Your task to perform on an android device: turn on the 24-hour format for clock Image 0: 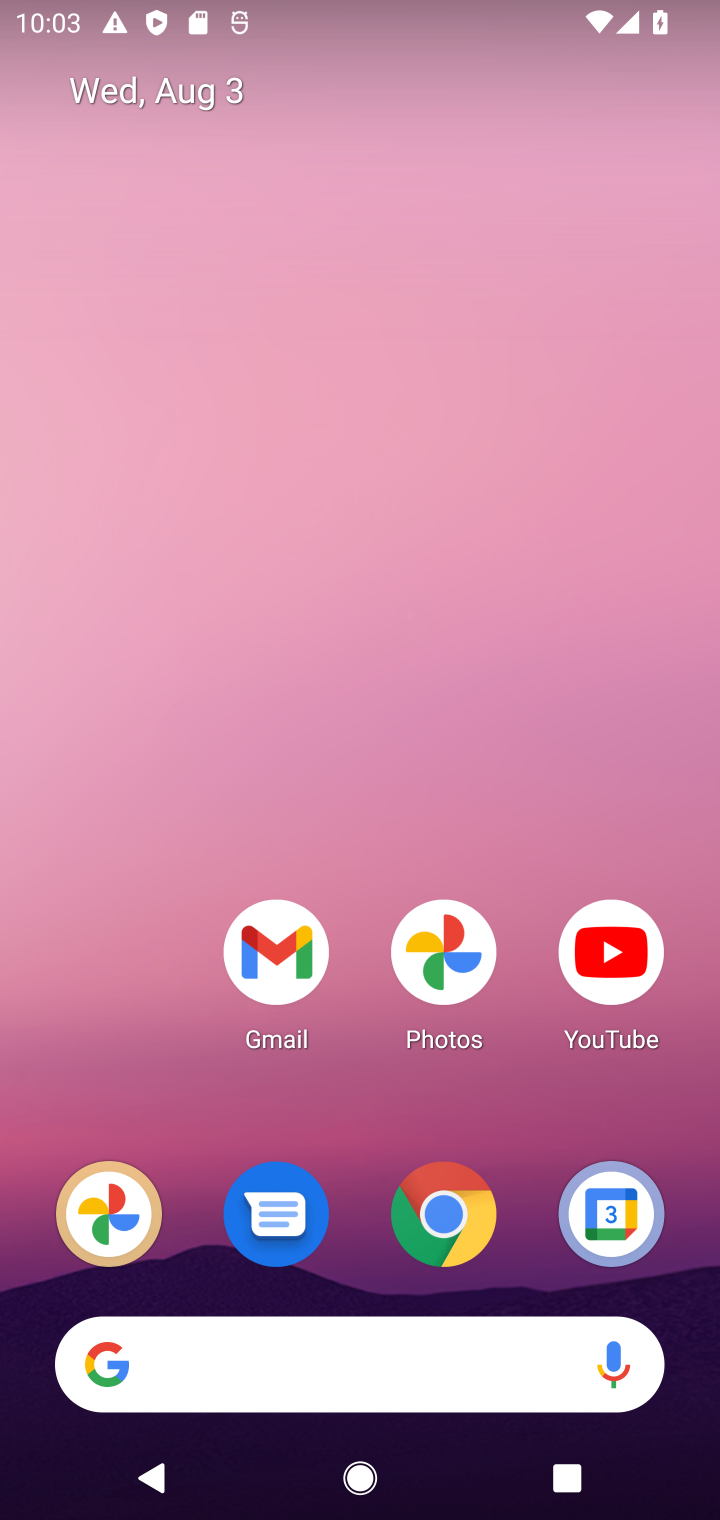
Step 0: press home button
Your task to perform on an android device: turn on the 24-hour format for clock Image 1: 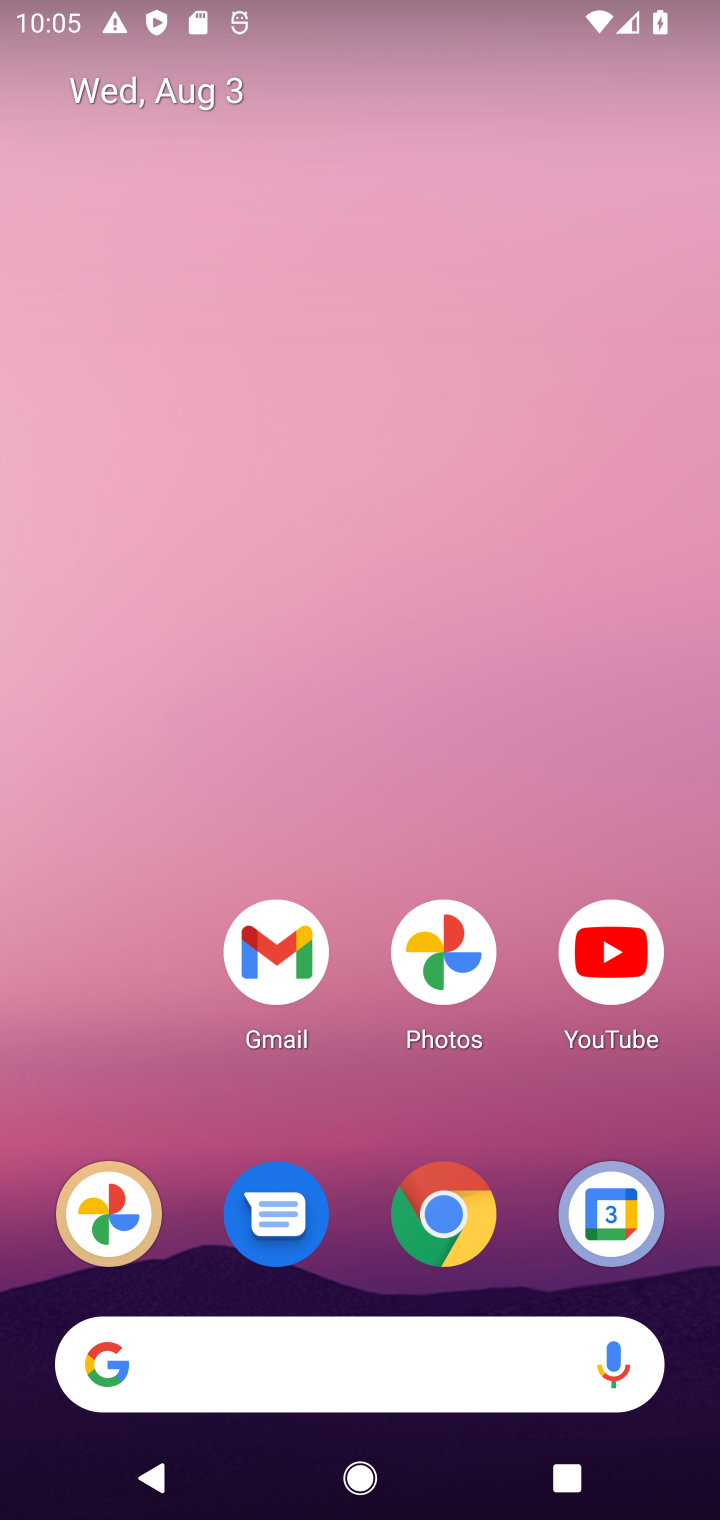
Step 1: drag from (372, 1199) to (399, 421)
Your task to perform on an android device: turn on the 24-hour format for clock Image 2: 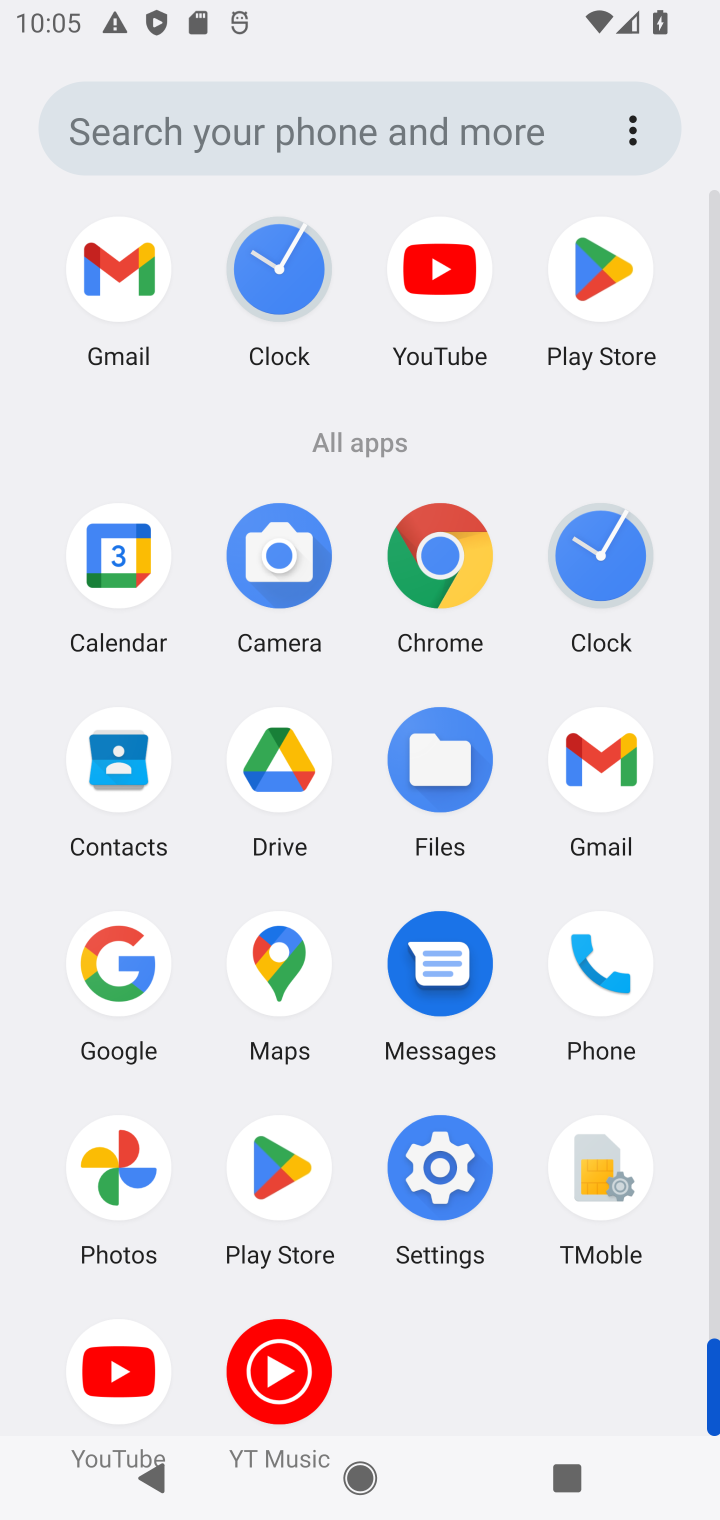
Step 2: click (571, 613)
Your task to perform on an android device: turn on the 24-hour format for clock Image 3: 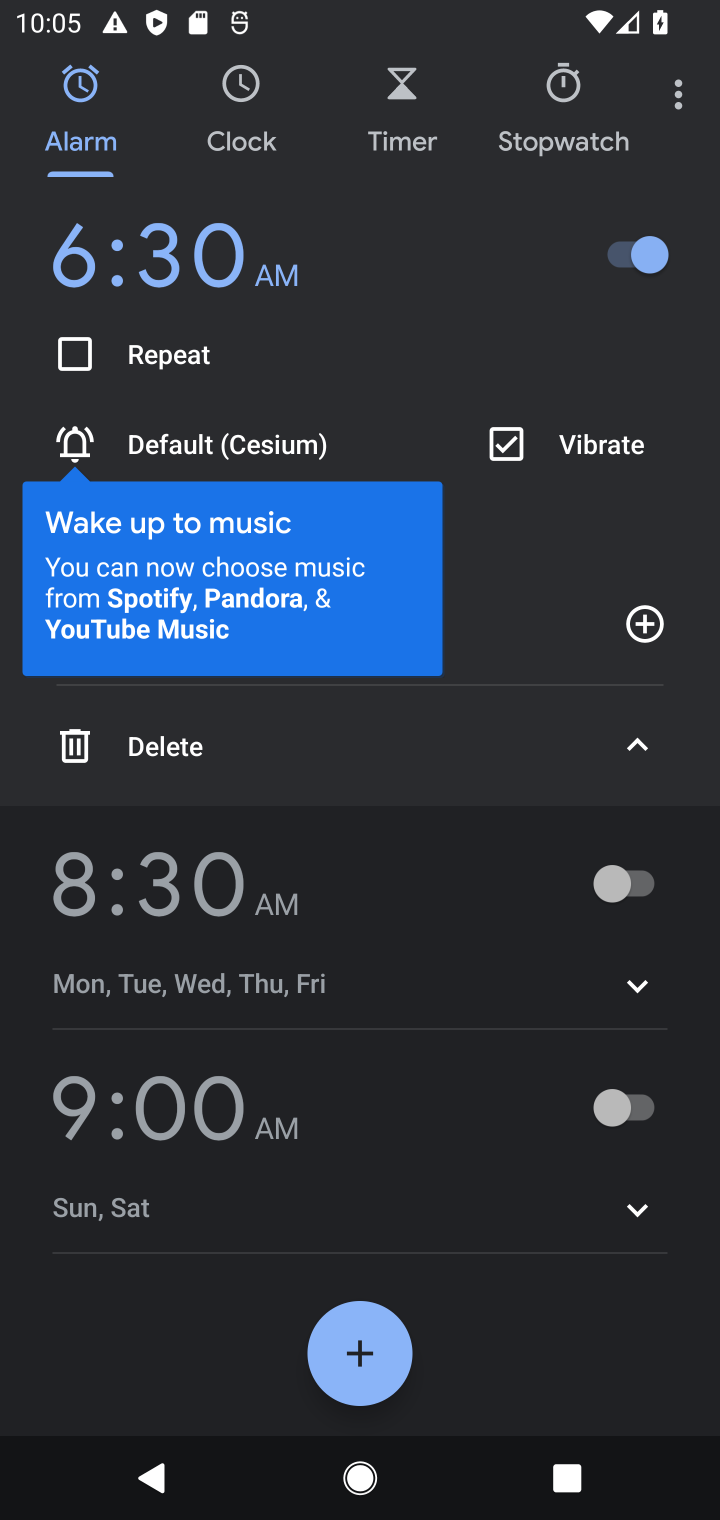
Step 3: click (678, 105)
Your task to perform on an android device: turn on the 24-hour format for clock Image 4: 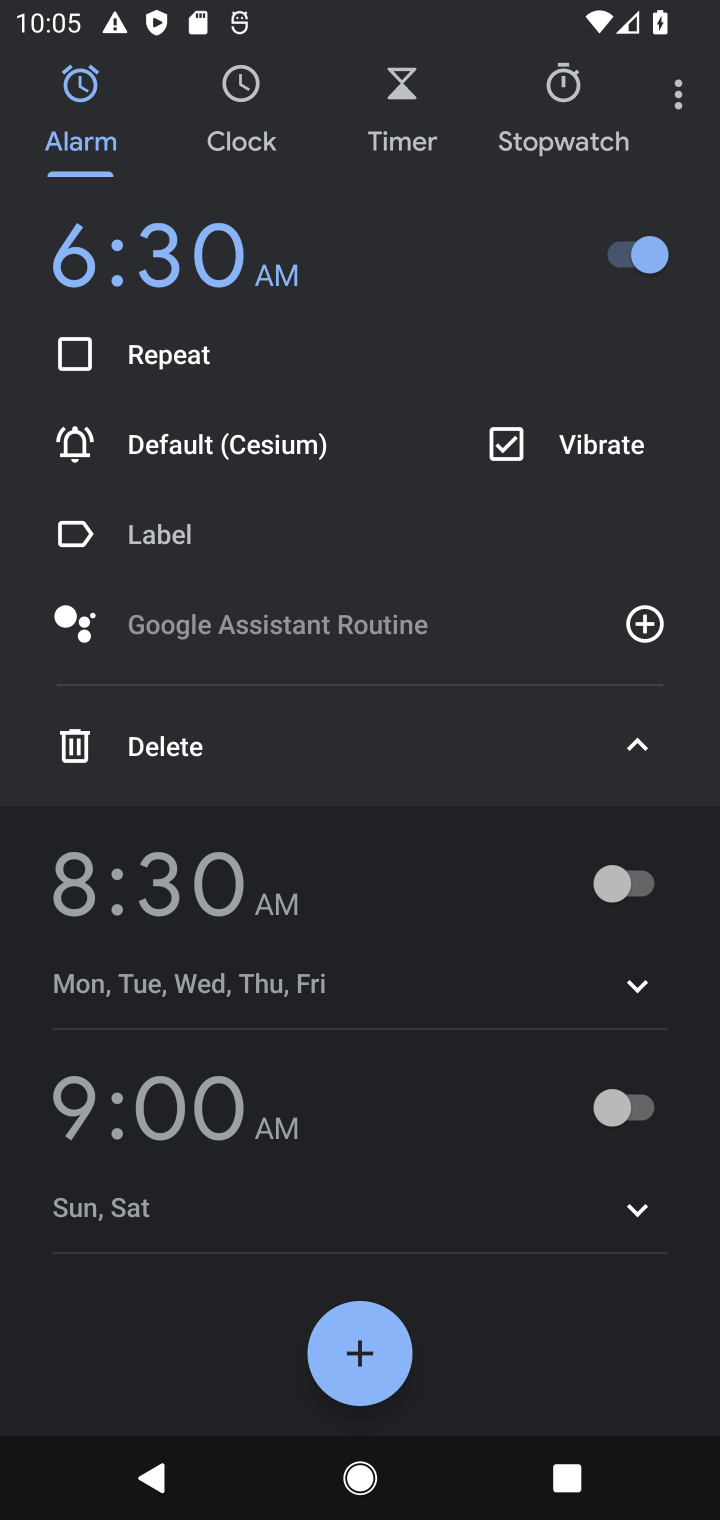
Step 4: click (681, 102)
Your task to perform on an android device: turn on the 24-hour format for clock Image 5: 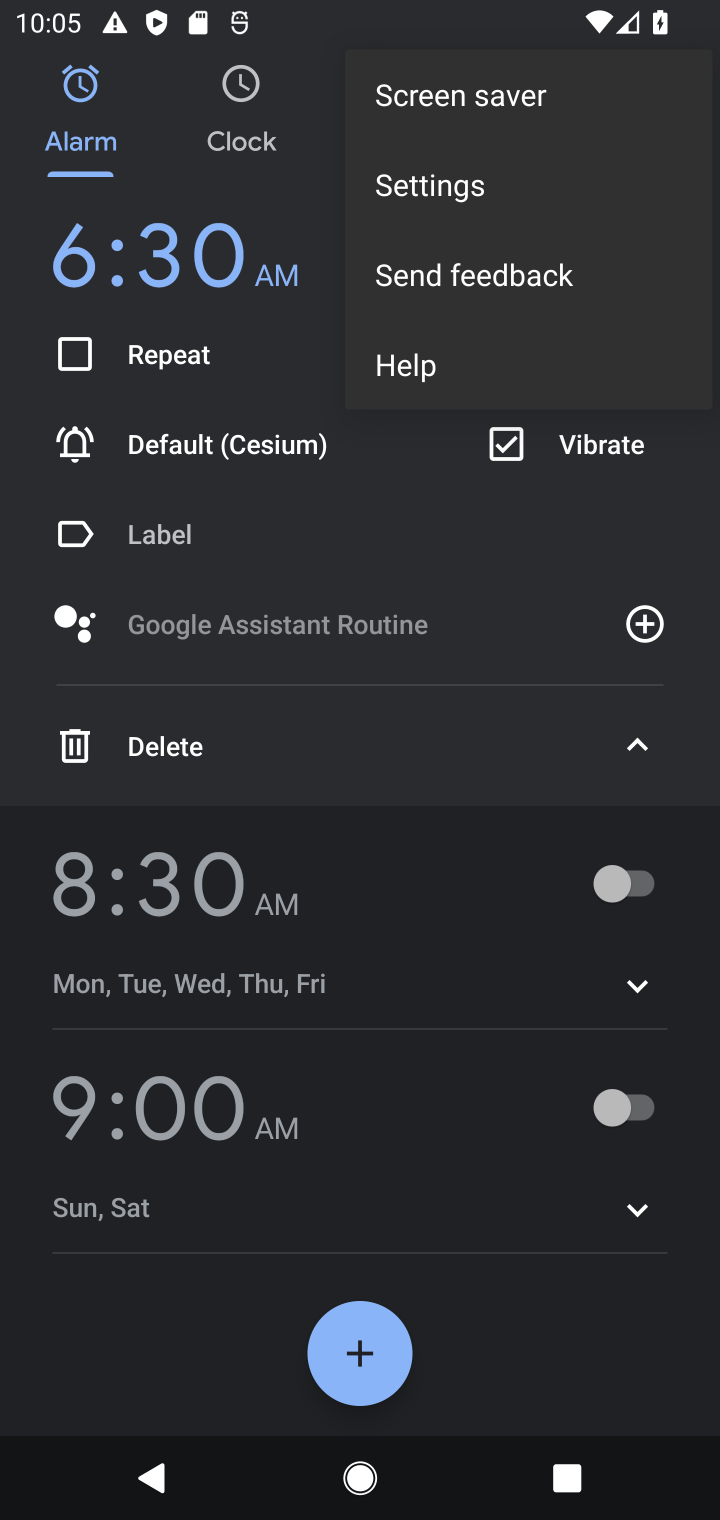
Step 5: click (496, 189)
Your task to perform on an android device: turn on the 24-hour format for clock Image 6: 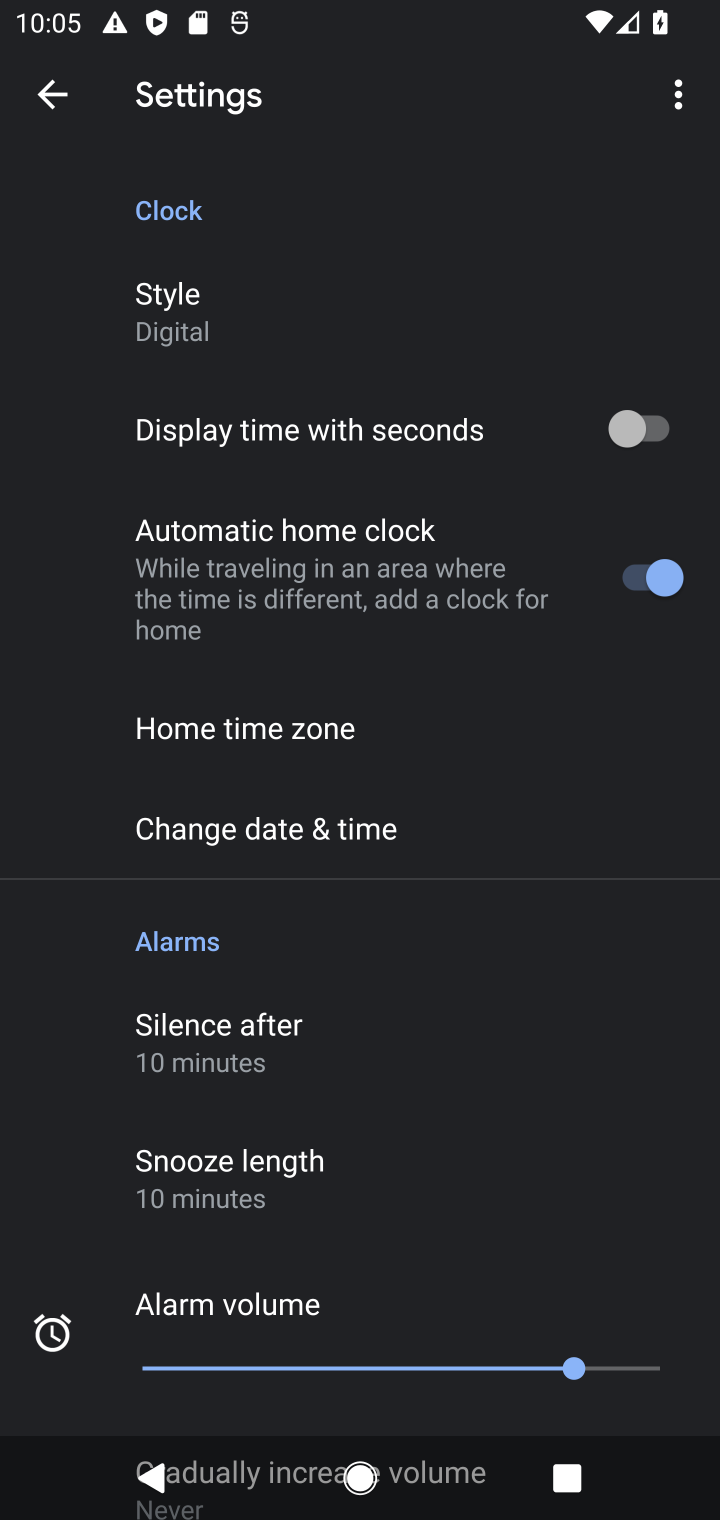
Step 6: drag from (292, 1055) to (273, 981)
Your task to perform on an android device: turn on the 24-hour format for clock Image 7: 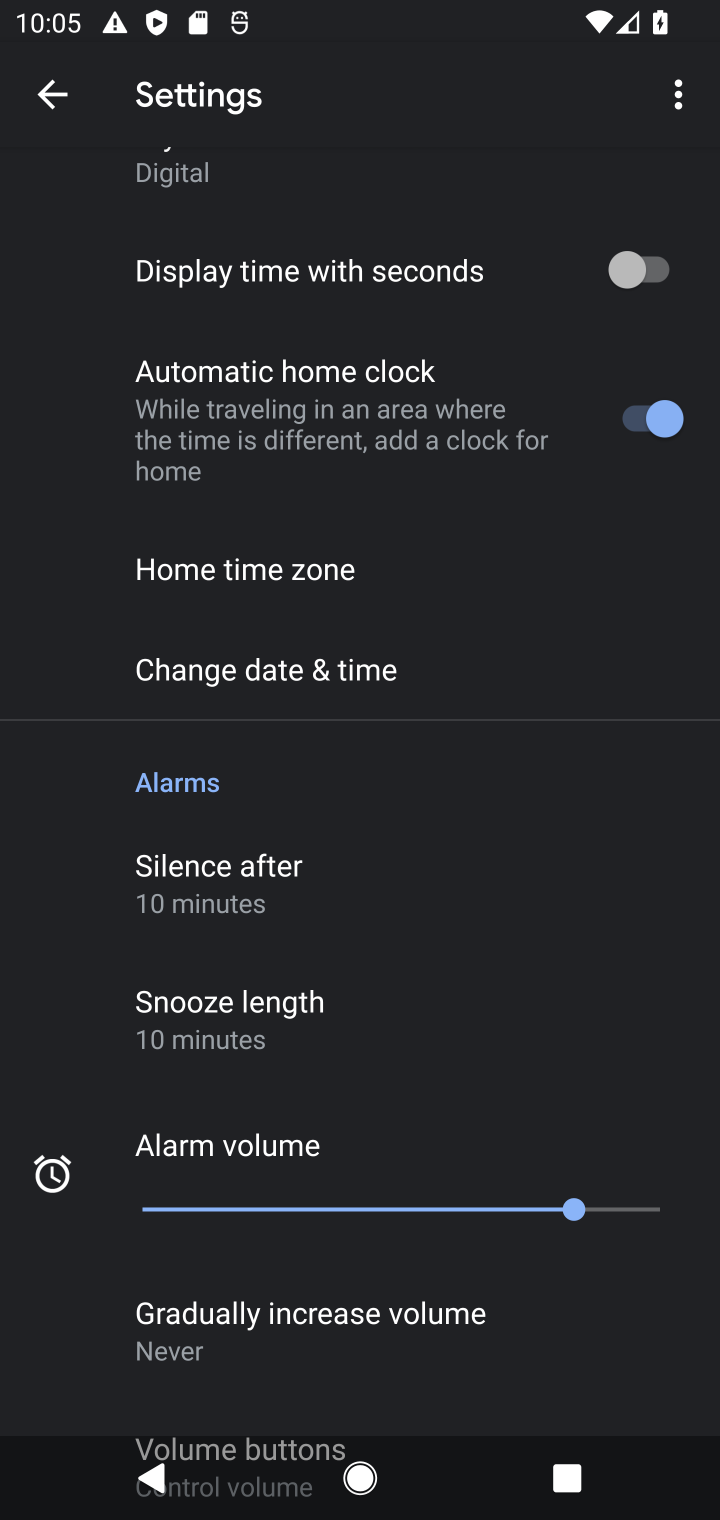
Step 7: click (302, 670)
Your task to perform on an android device: turn on the 24-hour format for clock Image 8: 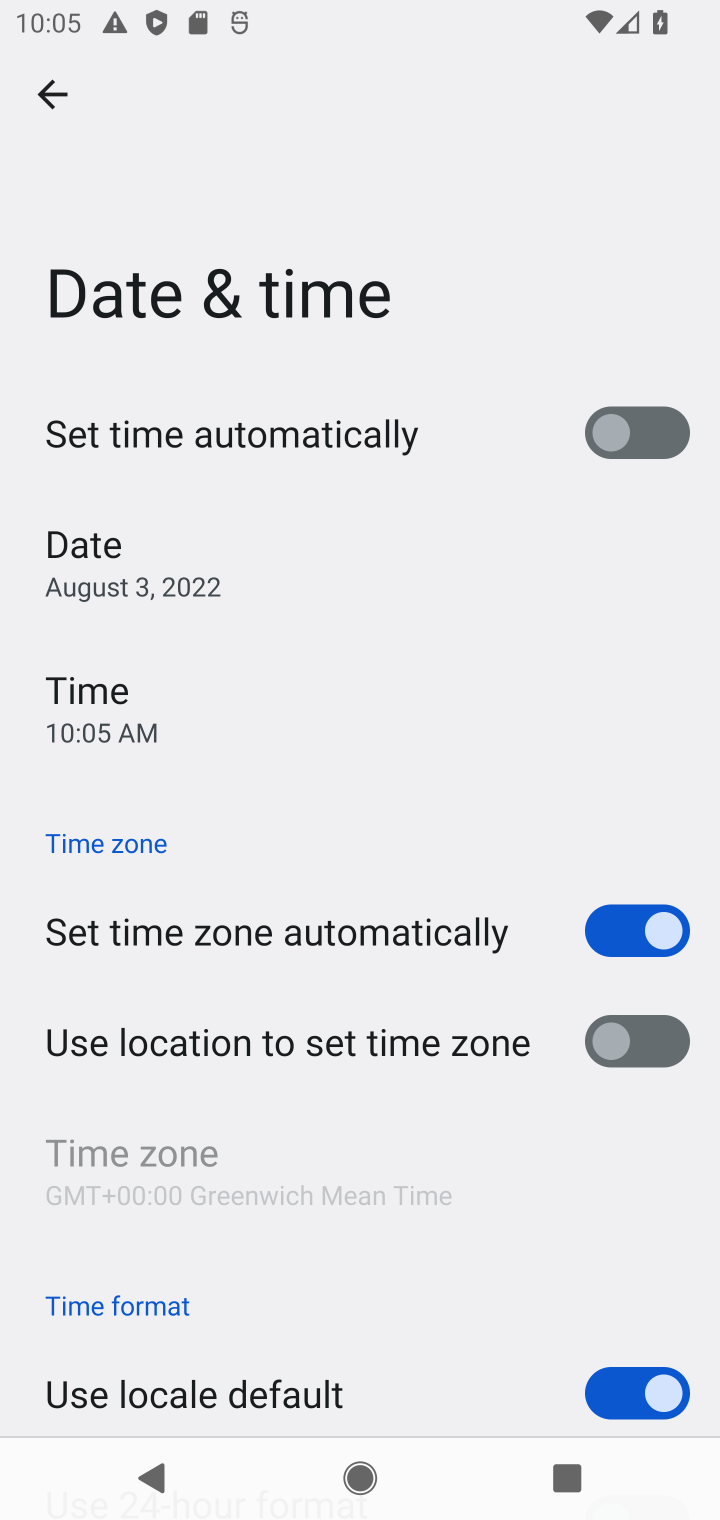
Step 8: drag from (359, 1178) to (535, 562)
Your task to perform on an android device: turn on the 24-hour format for clock Image 9: 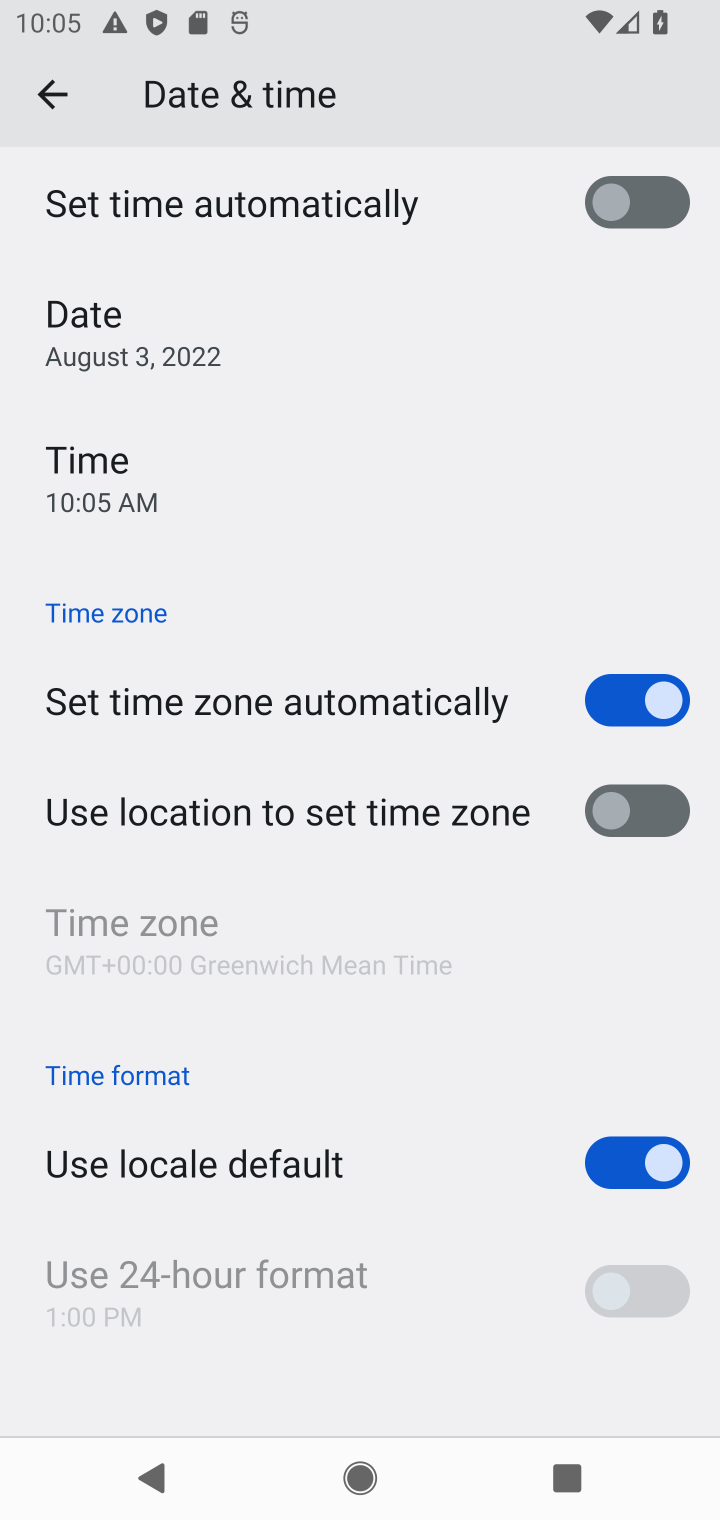
Step 9: click (356, 1147)
Your task to perform on an android device: turn on the 24-hour format for clock Image 10: 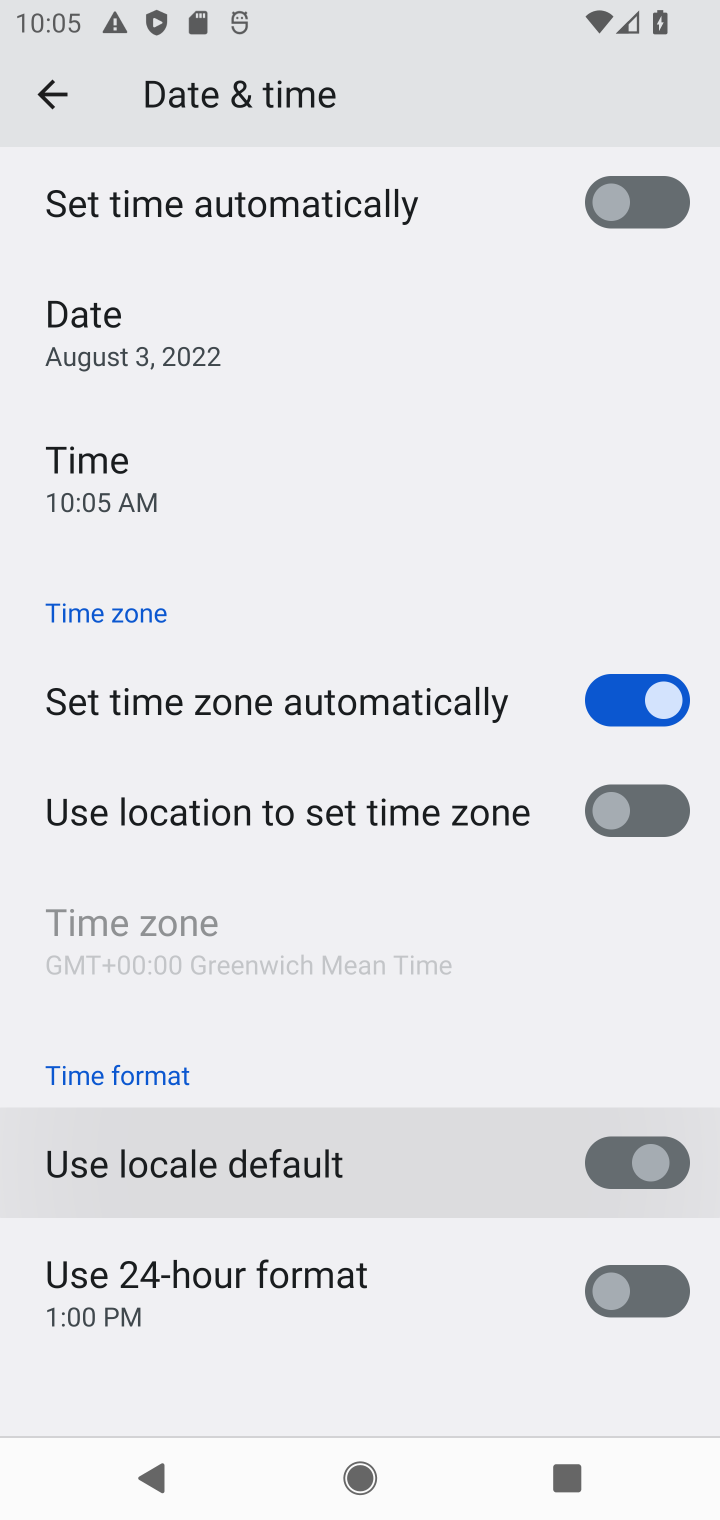
Step 10: click (336, 1272)
Your task to perform on an android device: turn on the 24-hour format for clock Image 11: 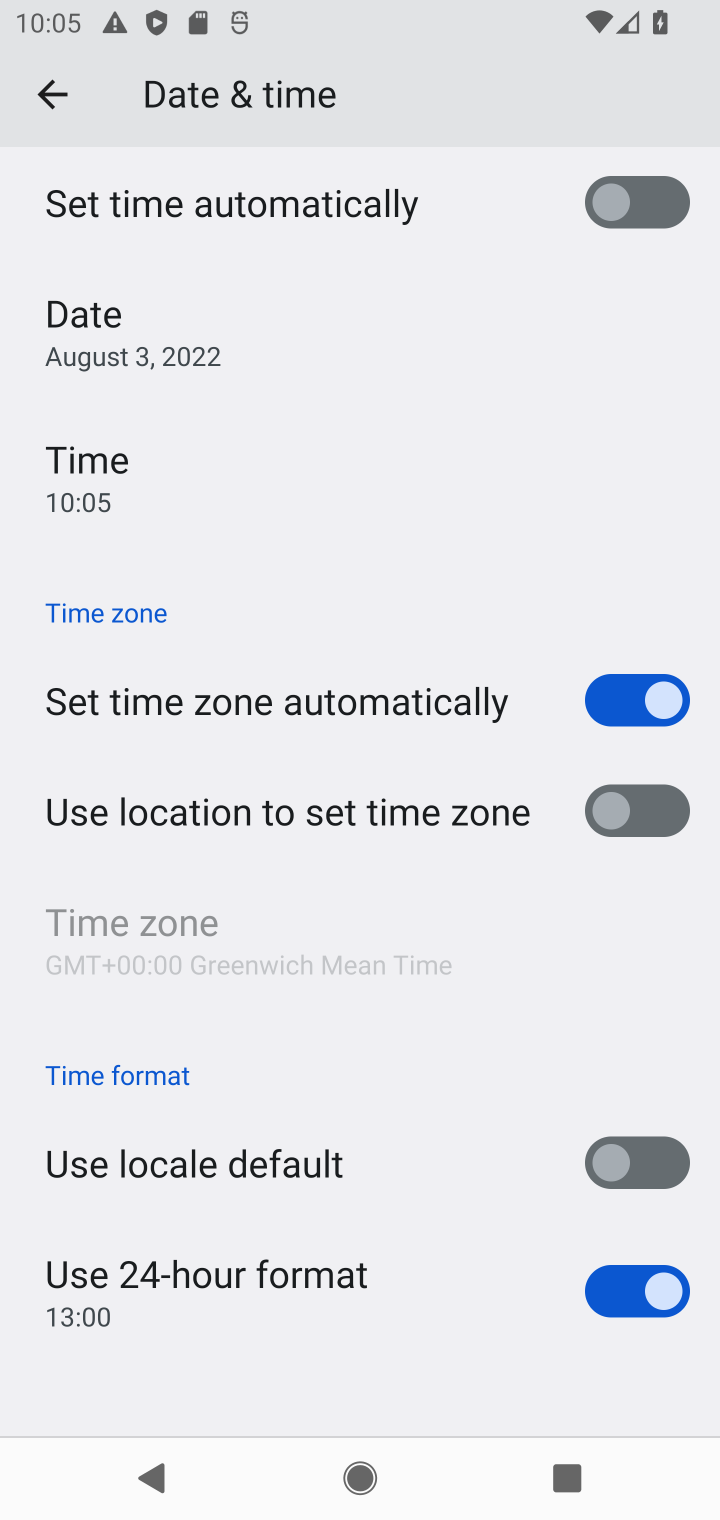
Step 11: task complete